Your task to perform on an android device: Show me recent news Image 0: 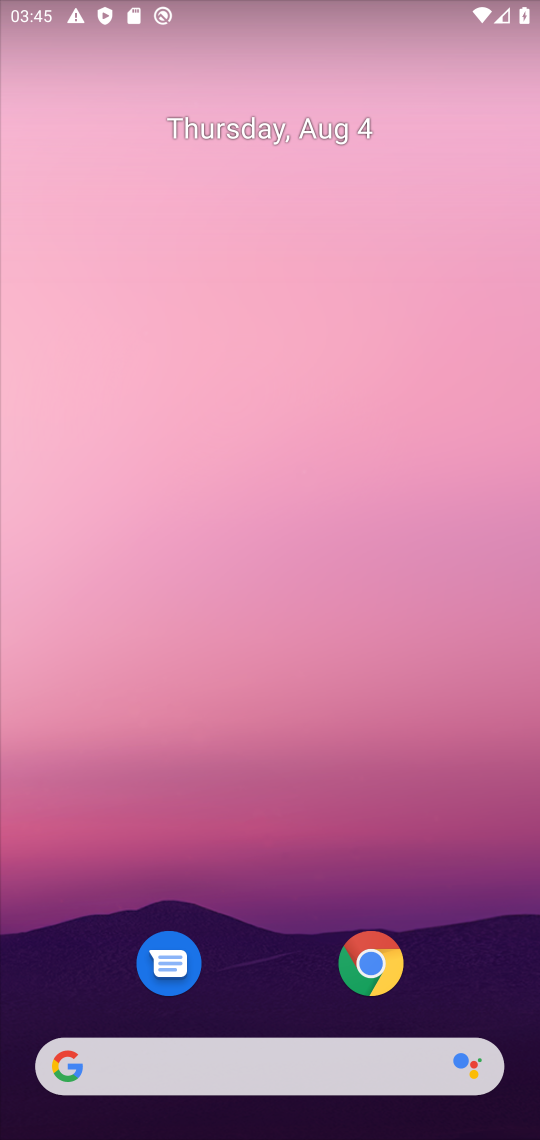
Step 0: press home button
Your task to perform on an android device: Show me recent news Image 1: 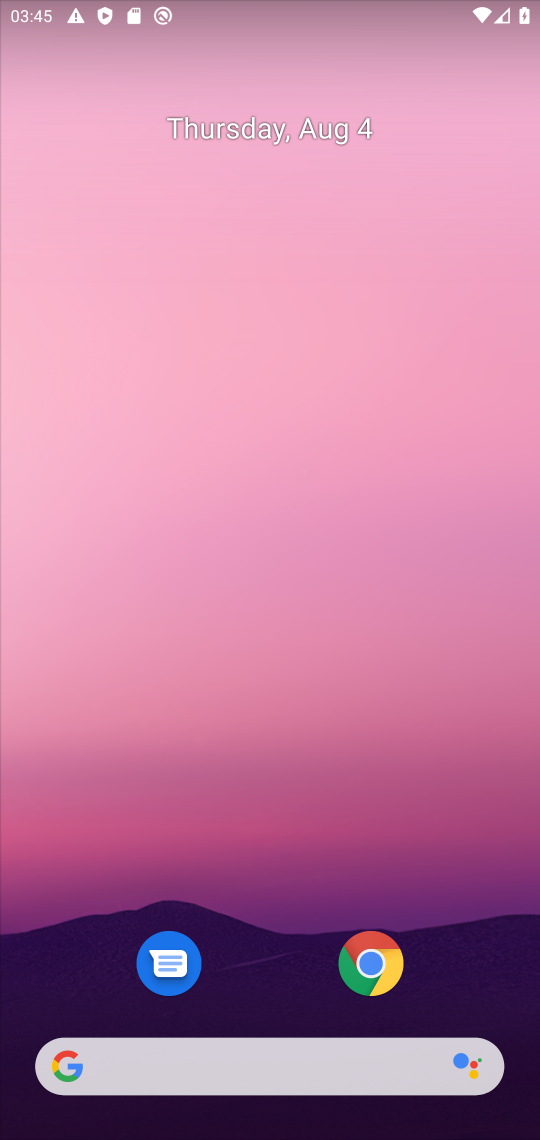
Step 1: click (166, 1066)
Your task to perform on an android device: Show me recent news Image 2: 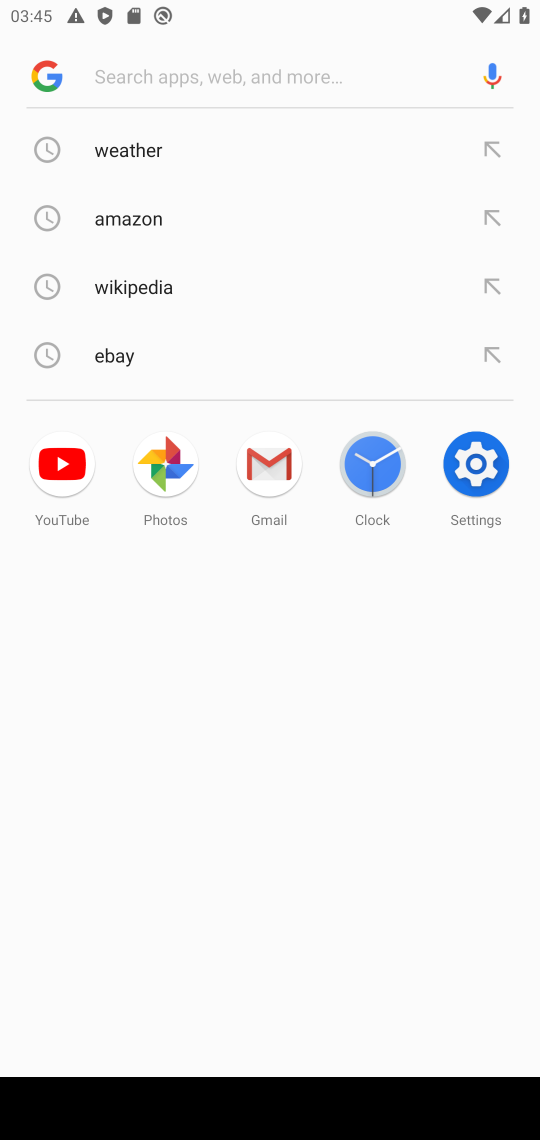
Step 2: type "recent news"
Your task to perform on an android device: Show me recent news Image 3: 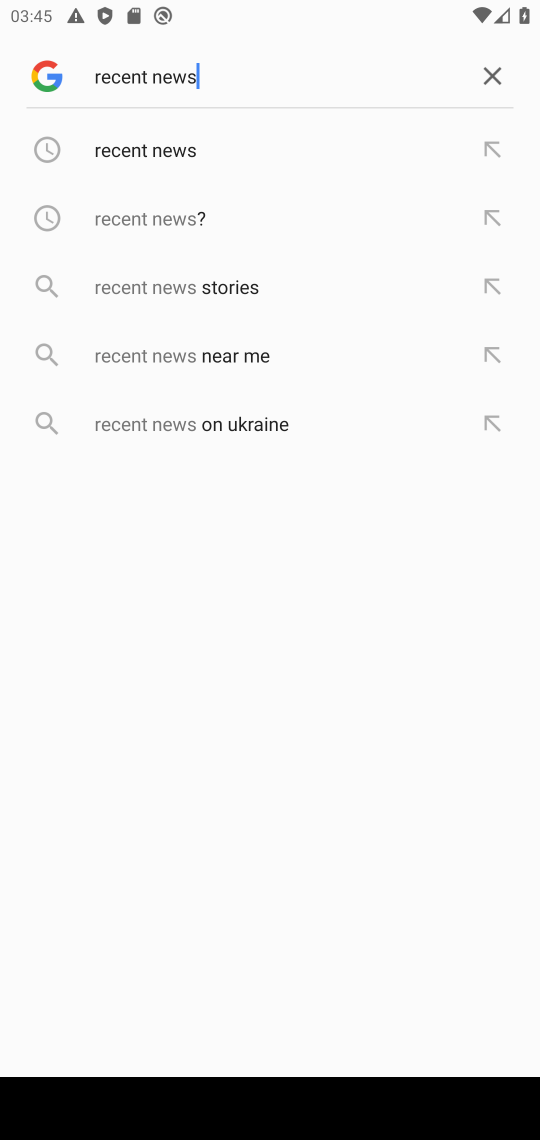
Step 3: click (98, 152)
Your task to perform on an android device: Show me recent news Image 4: 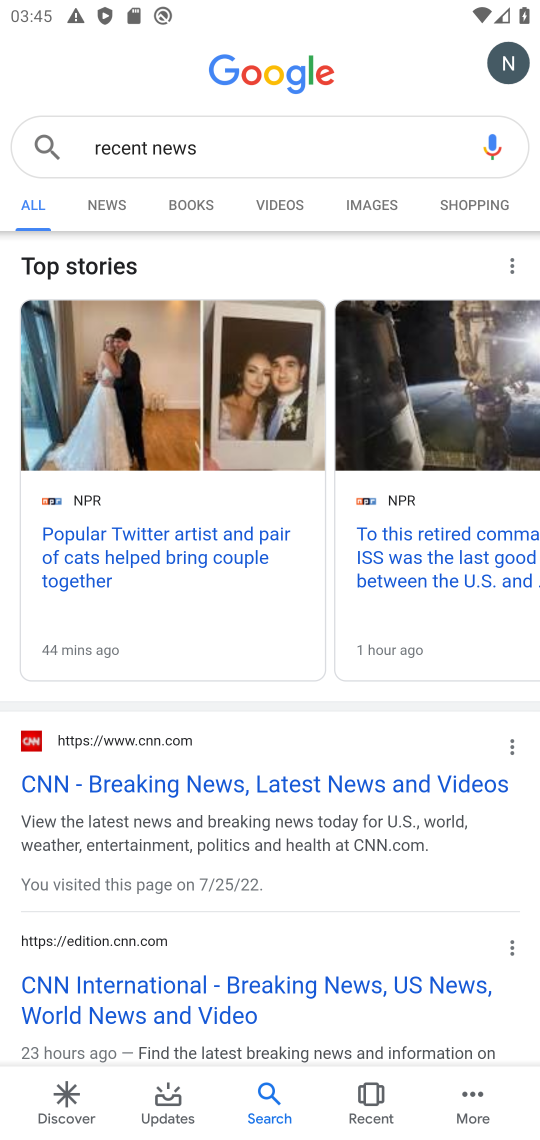
Step 4: click (166, 581)
Your task to perform on an android device: Show me recent news Image 5: 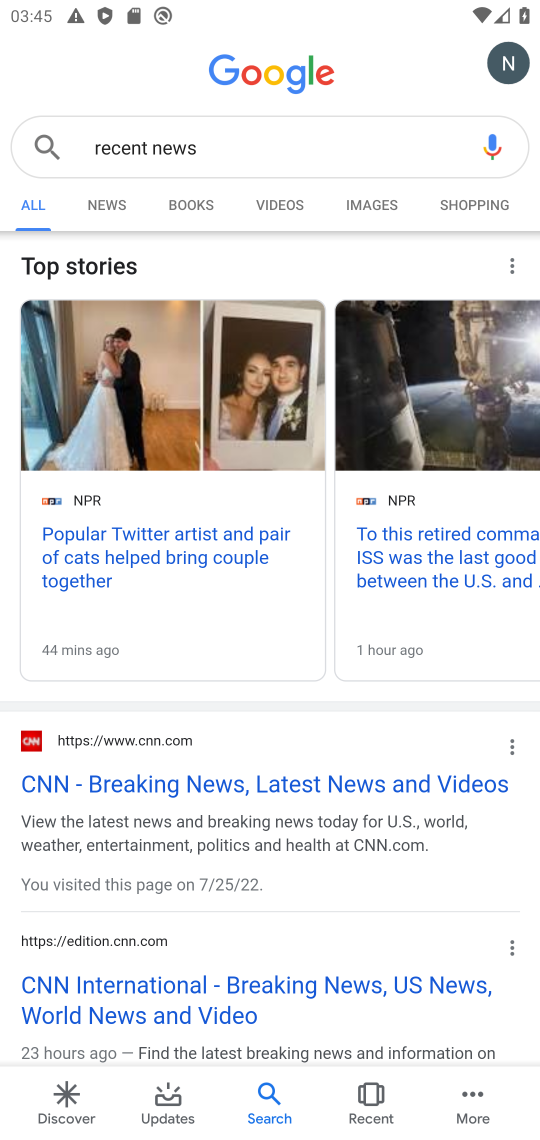
Step 5: click (128, 543)
Your task to perform on an android device: Show me recent news Image 6: 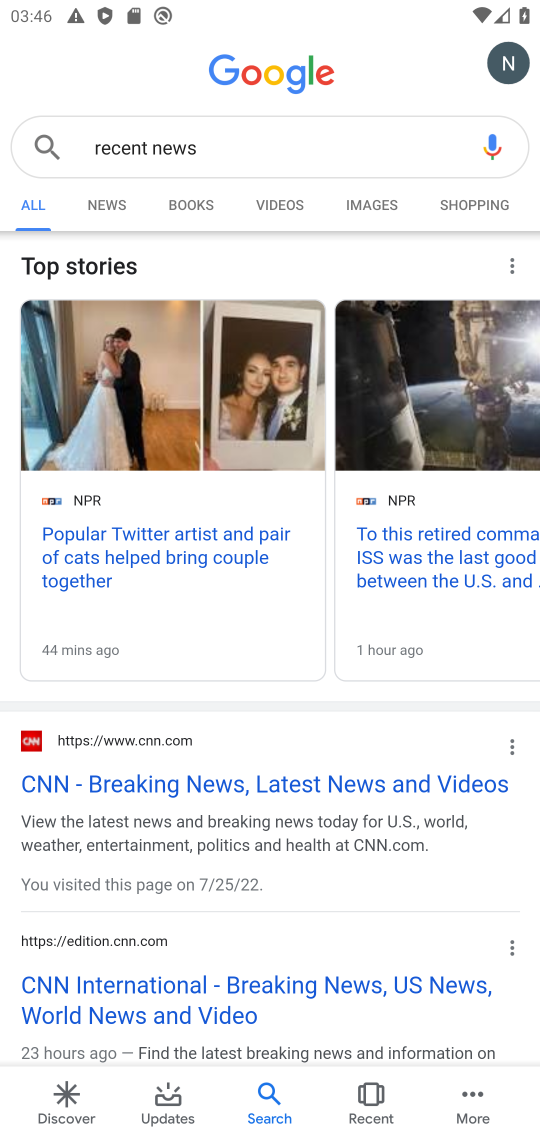
Step 6: click (129, 525)
Your task to perform on an android device: Show me recent news Image 7: 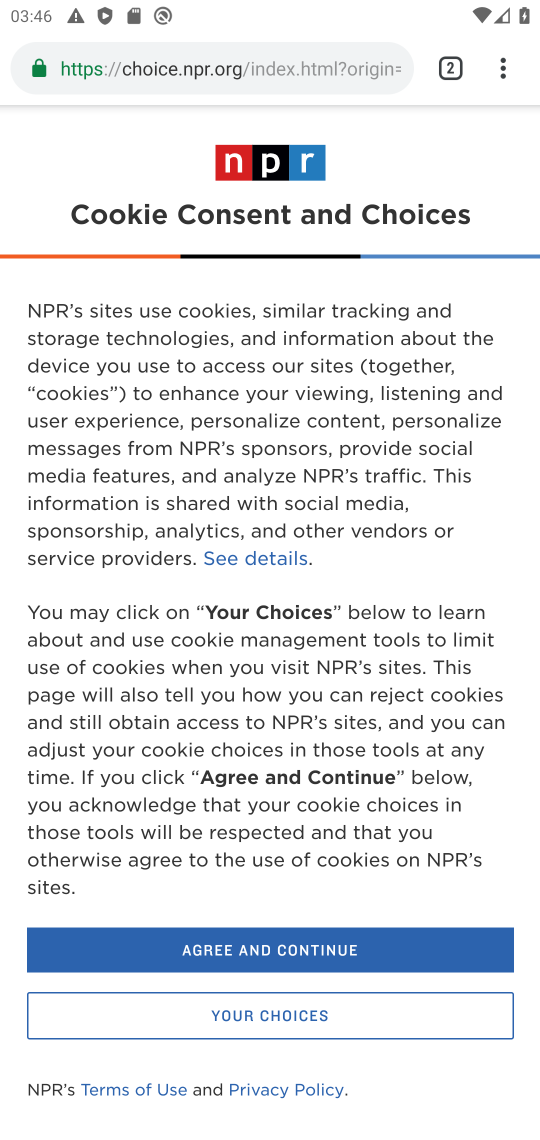
Step 7: task complete